Your task to perform on an android device: Open Chrome and go to settings Image 0: 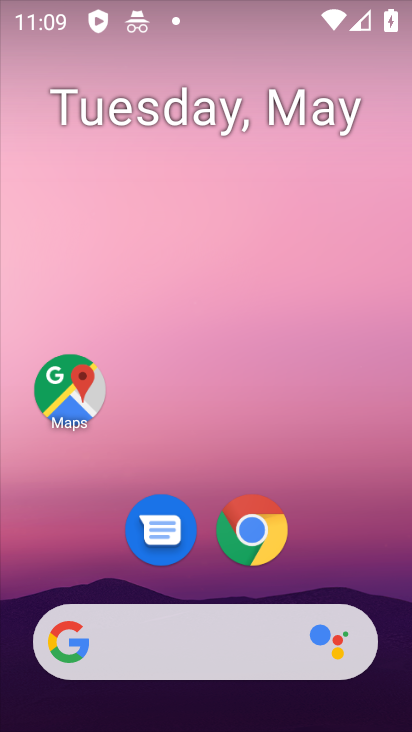
Step 0: drag from (368, 509) to (411, 154)
Your task to perform on an android device: Open Chrome and go to settings Image 1: 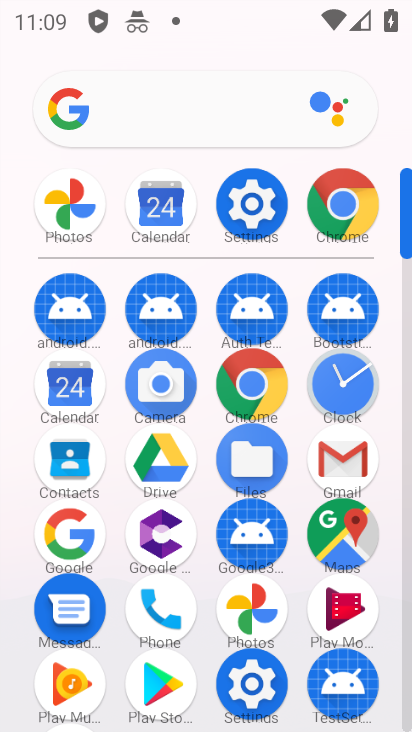
Step 1: drag from (294, 358) to (333, 54)
Your task to perform on an android device: Open Chrome and go to settings Image 2: 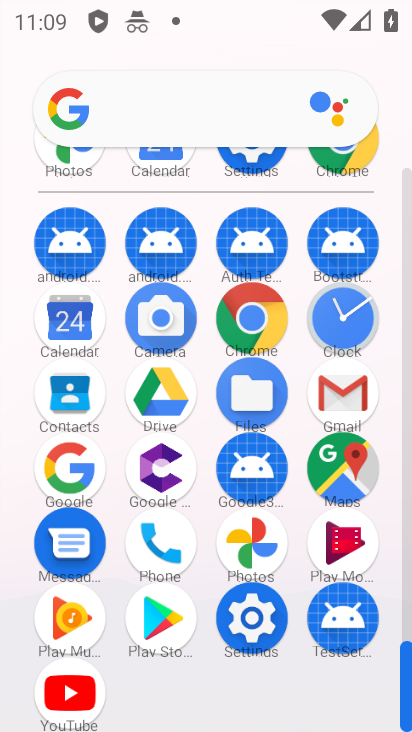
Step 2: click (263, 304)
Your task to perform on an android device: Open Chrome and go to settings Image 3: 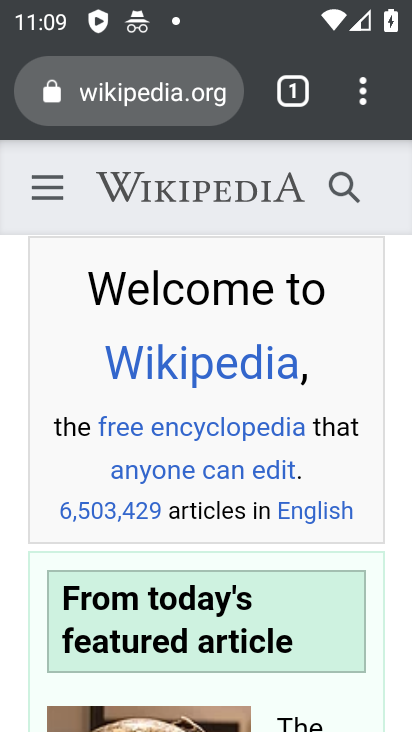
Step 3: task complete